Your task to perform on an android device: turn off location Image 0: 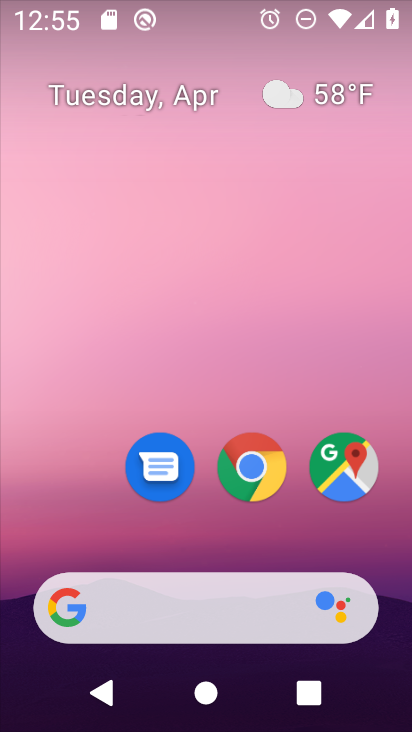
Step 0: drag from (188, 5) to (244, 512)
Your task to perform on an android device: turn off location Image 1: 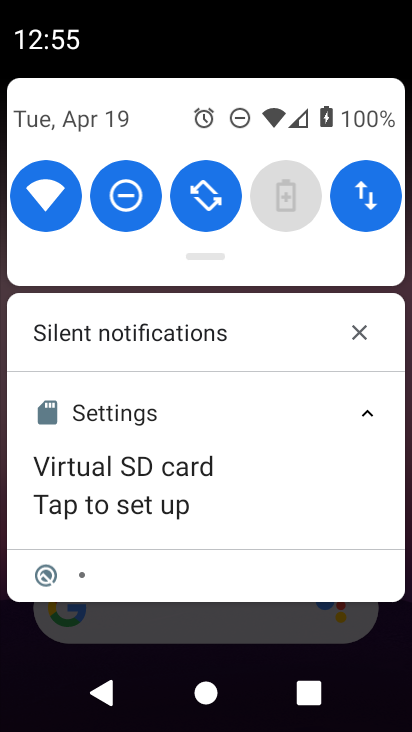
Step 1: drag from (245, 118) to (296, 514)
Your task to perform on an android device: turn off location Image 2: 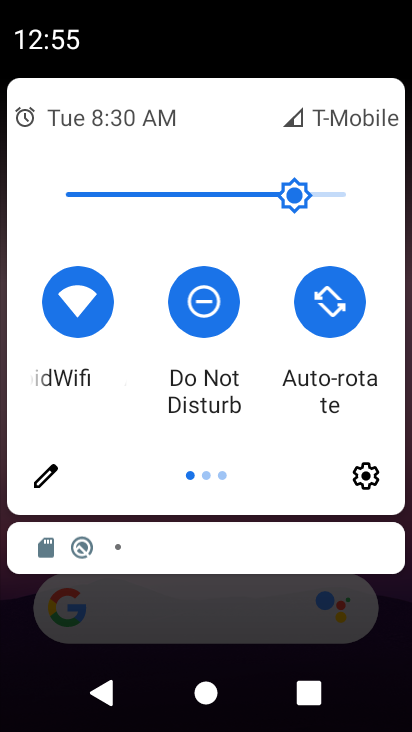
Step 2: click (369, 485)
Your task to perform on an android device: turn off location Image 3: 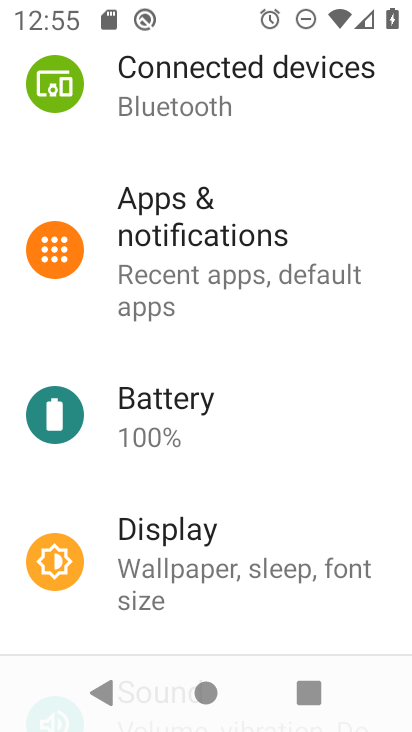
Step 3: drag from (223, 586) to (199, 149)
Your task to perform on an android device: turn off location Image 4: 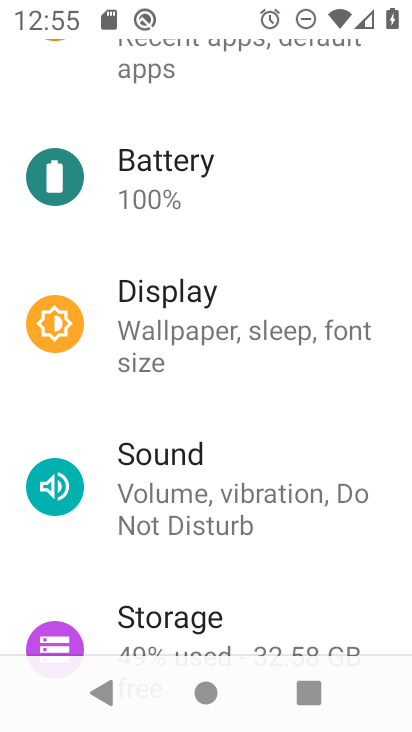
Step 4: drag from (226, 599) to (242, 177)
Your task to perform on an android device: turn off location Image 5: 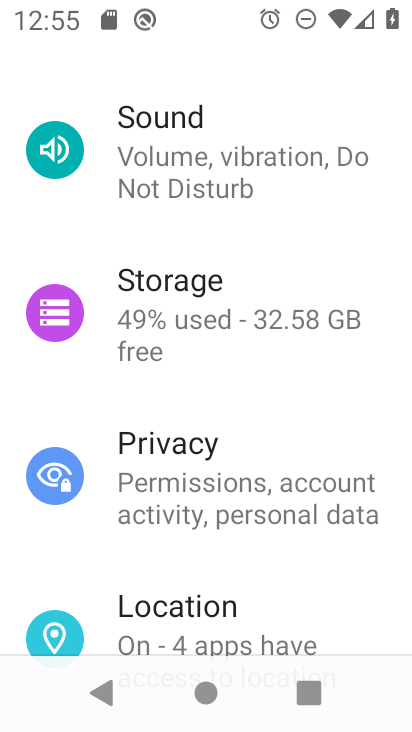
Step 5: click (177, 618)
Your task to perform on an android device: turn off location Image 6: 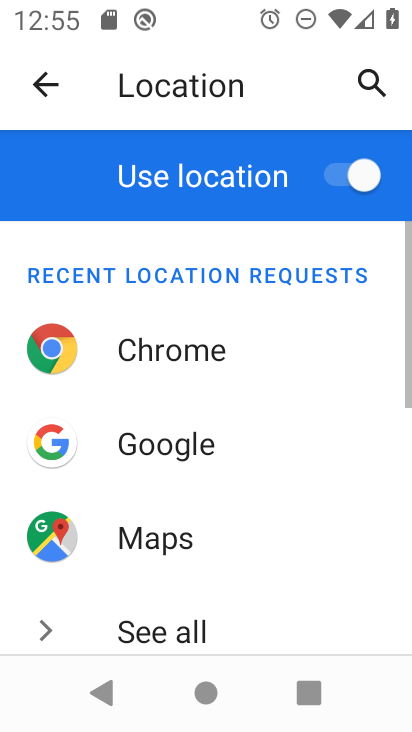
Step 6: click (363, 183)
Your task to perform on an android device: turn off location Image 7: 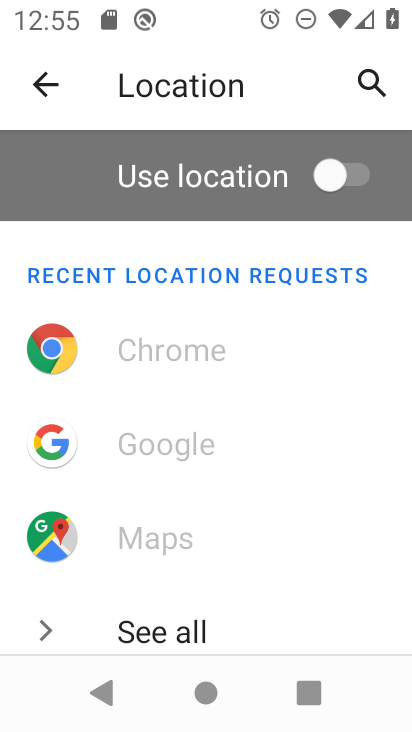
Step 7: task complete